Your task to perform on an android device: What's the weather? Image 0: 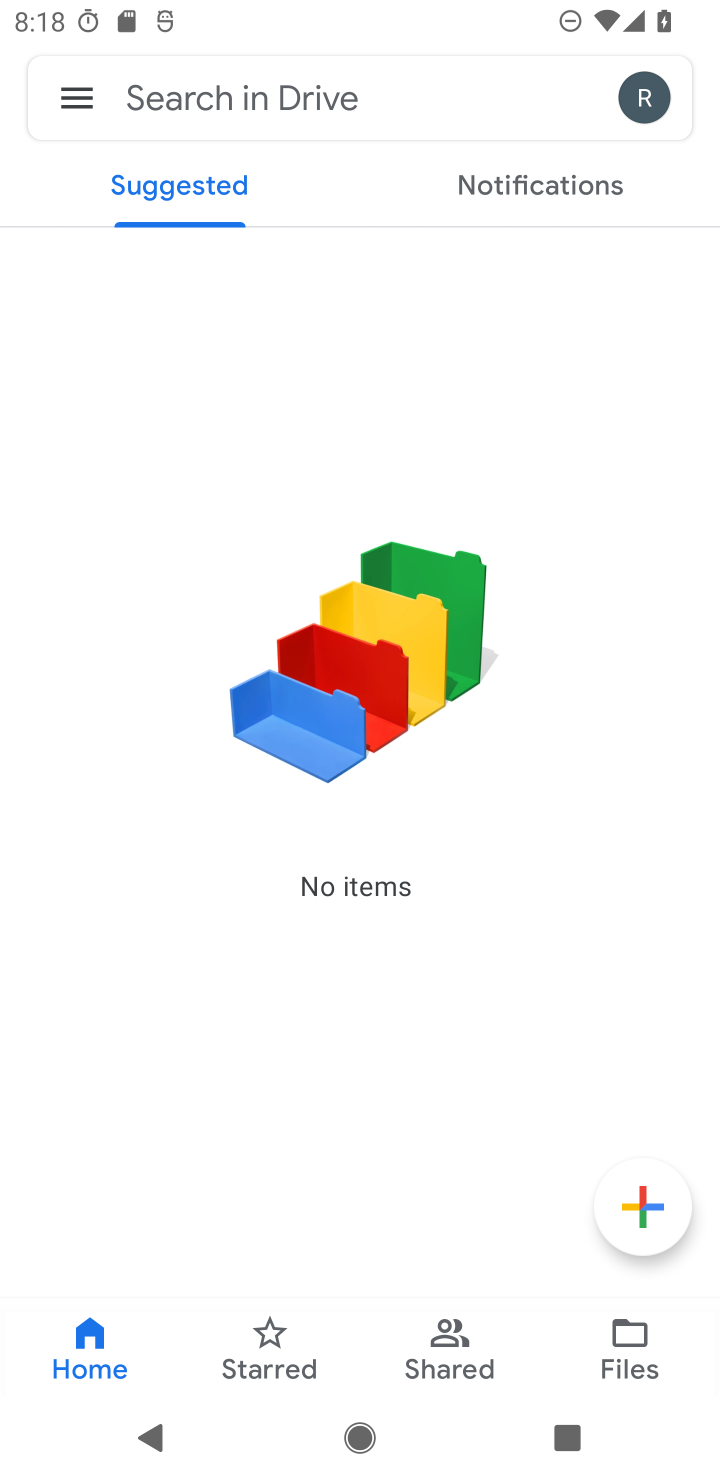
Step 0: press home button
Your task to perform on an android device: What's the weather? Image 1: 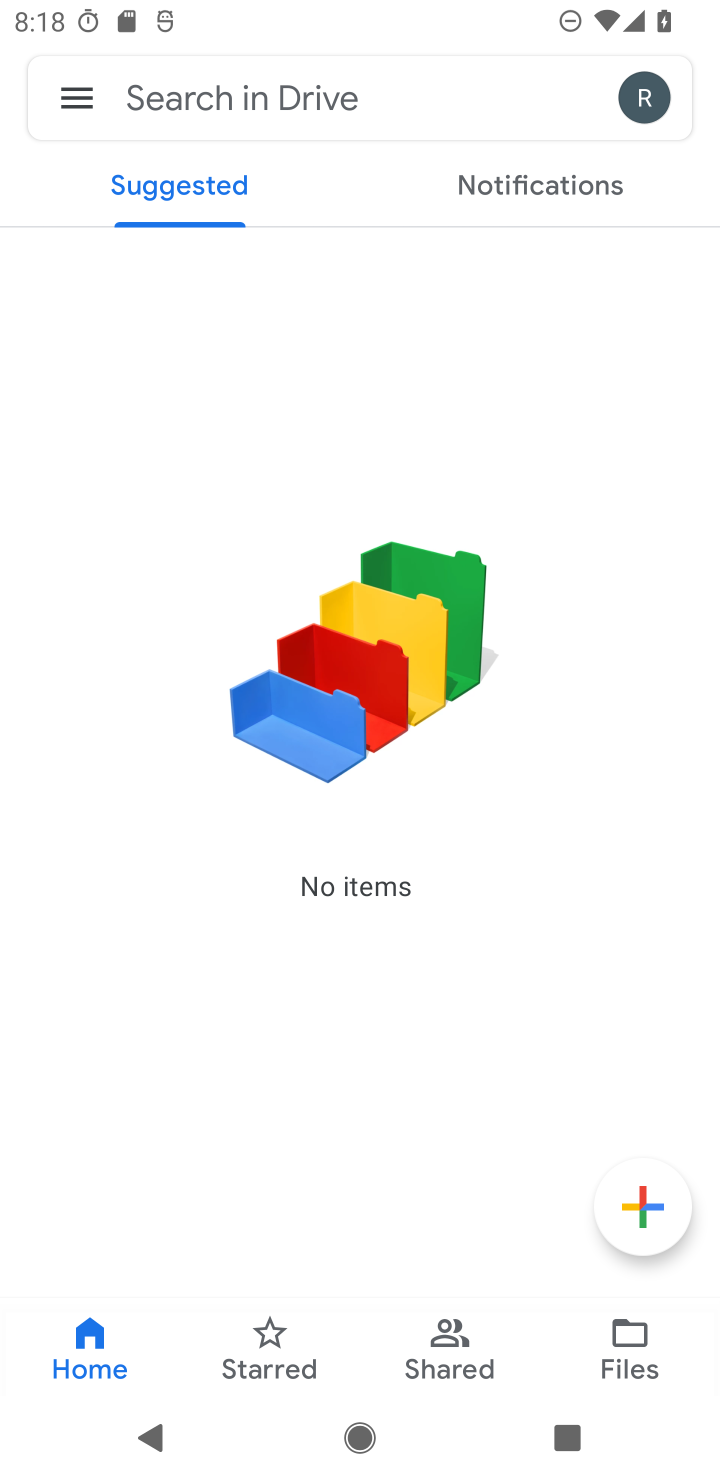
Step 1: press home button
Your task to perform on an android device: What's the weather? Image 2: 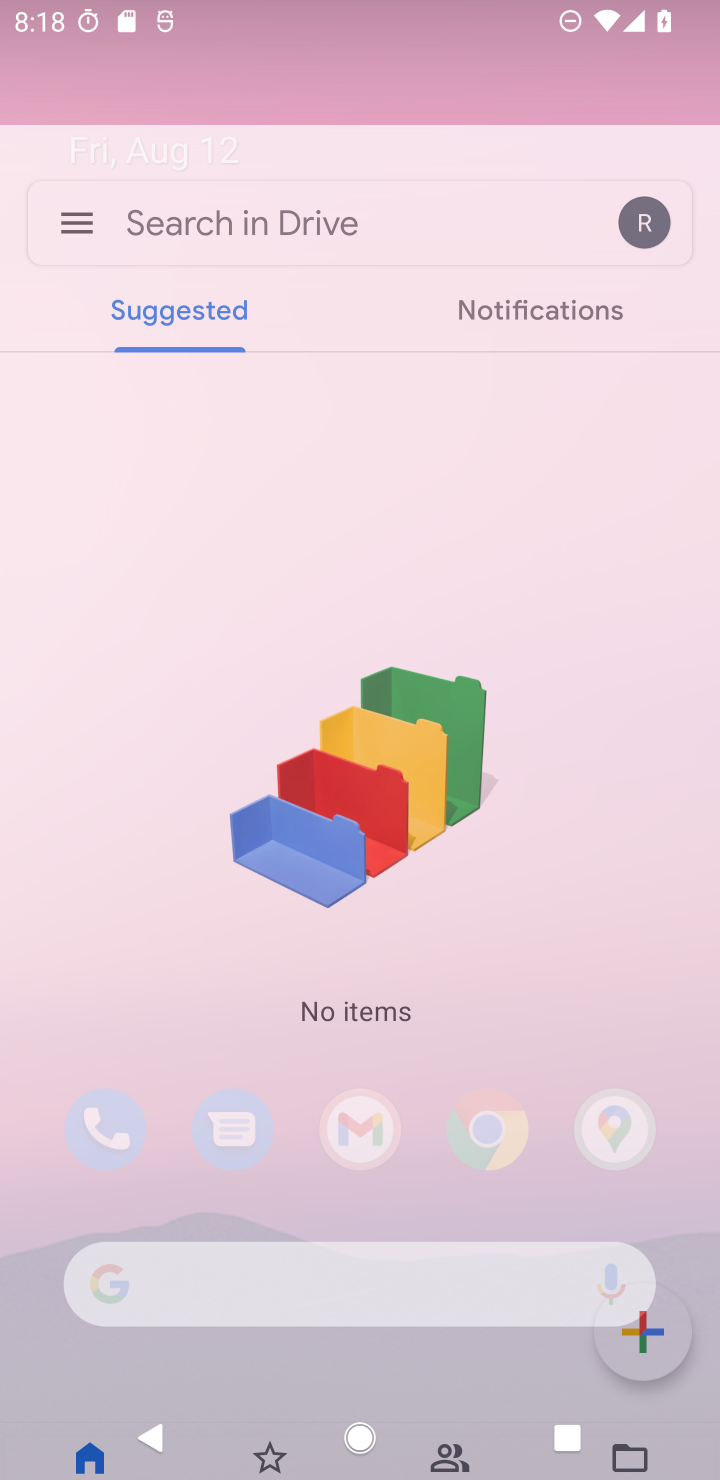
Step 2: press home button
Your task to perform on an android device: What's the weather? Image 3: 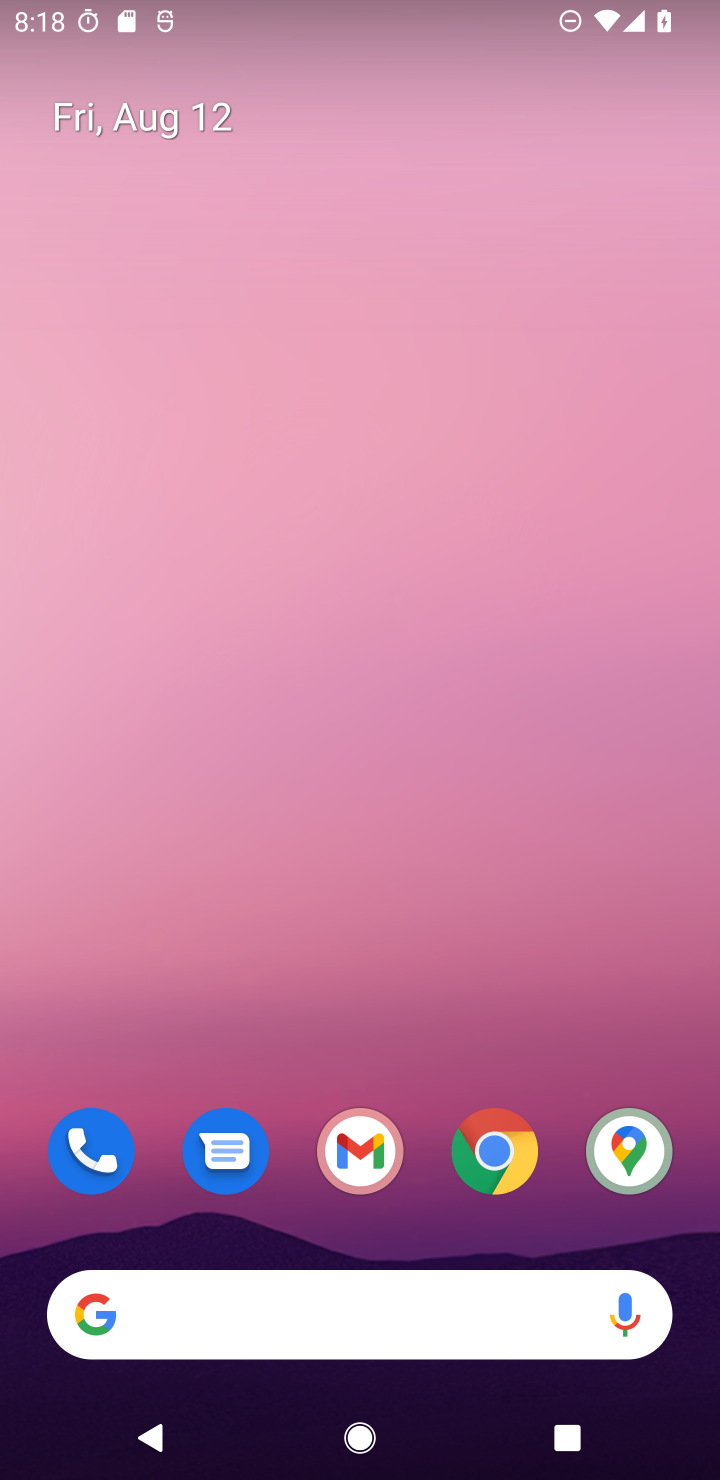
Step 3: drag from (429, 743) to (449, 98)
Your task to perform on an android device: What's the weather? Image 4: 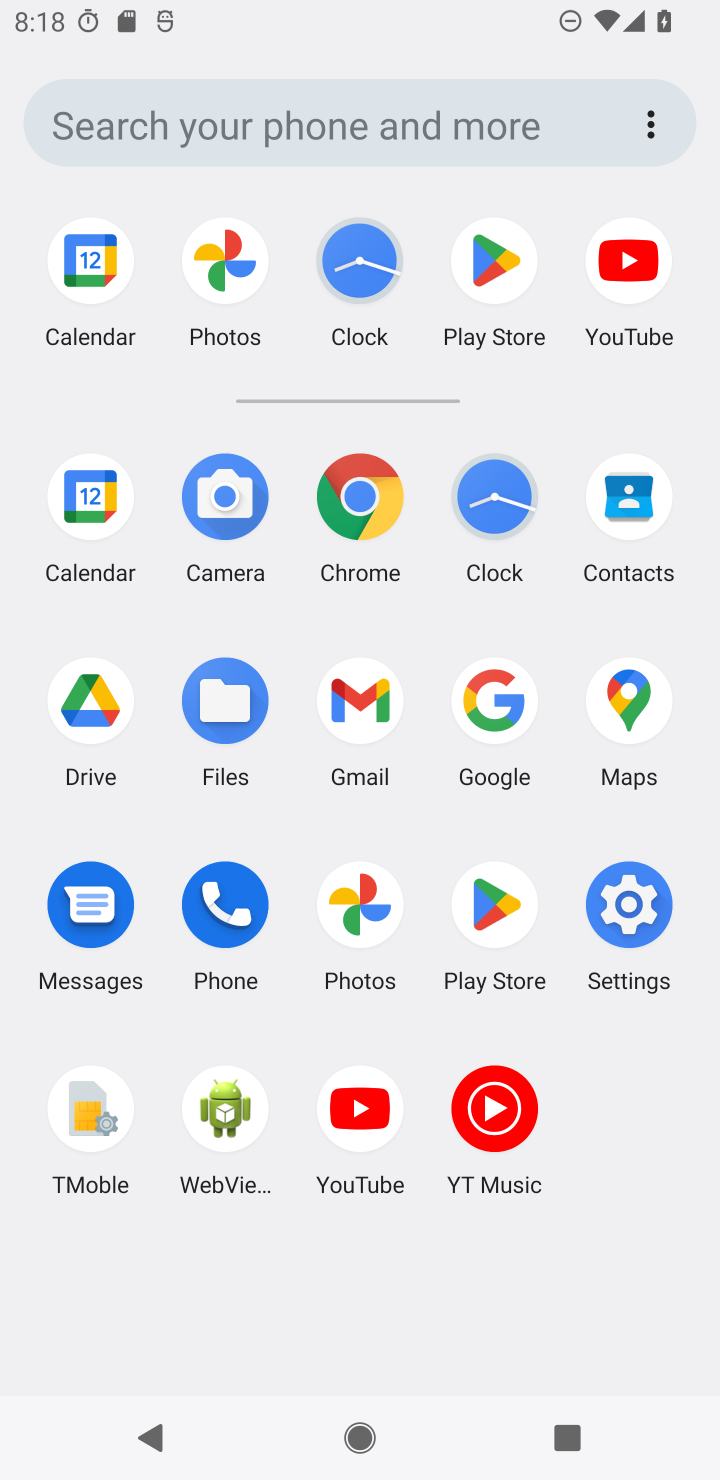
Step 4: click (373, 491)
Your task to perform on an android device: What's the weather? Image 5: 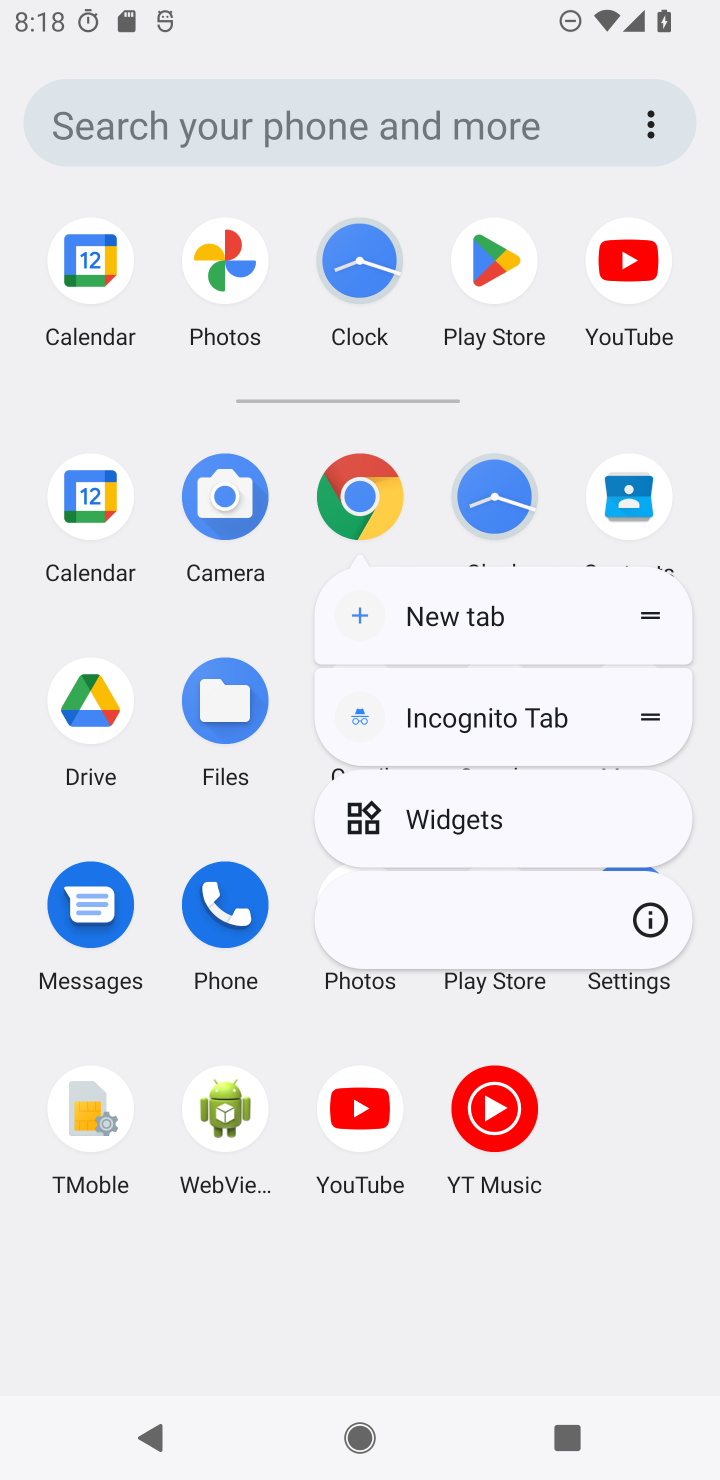
Step 5: click (353, 497)
Your task to perform on an android device: What's the weather? Image 6: 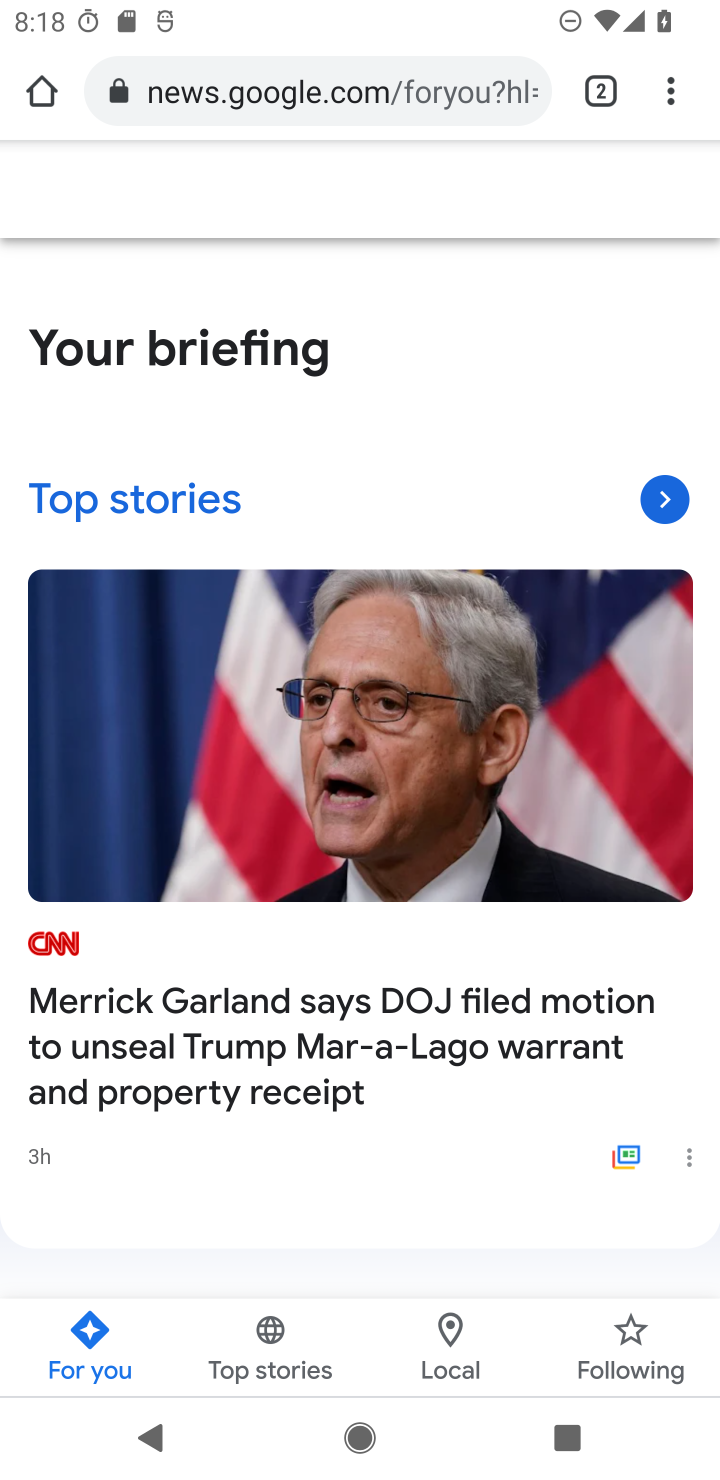
Step 6: click (304, 85)
Your task to perform on an android device: What's the weather? Image 7: 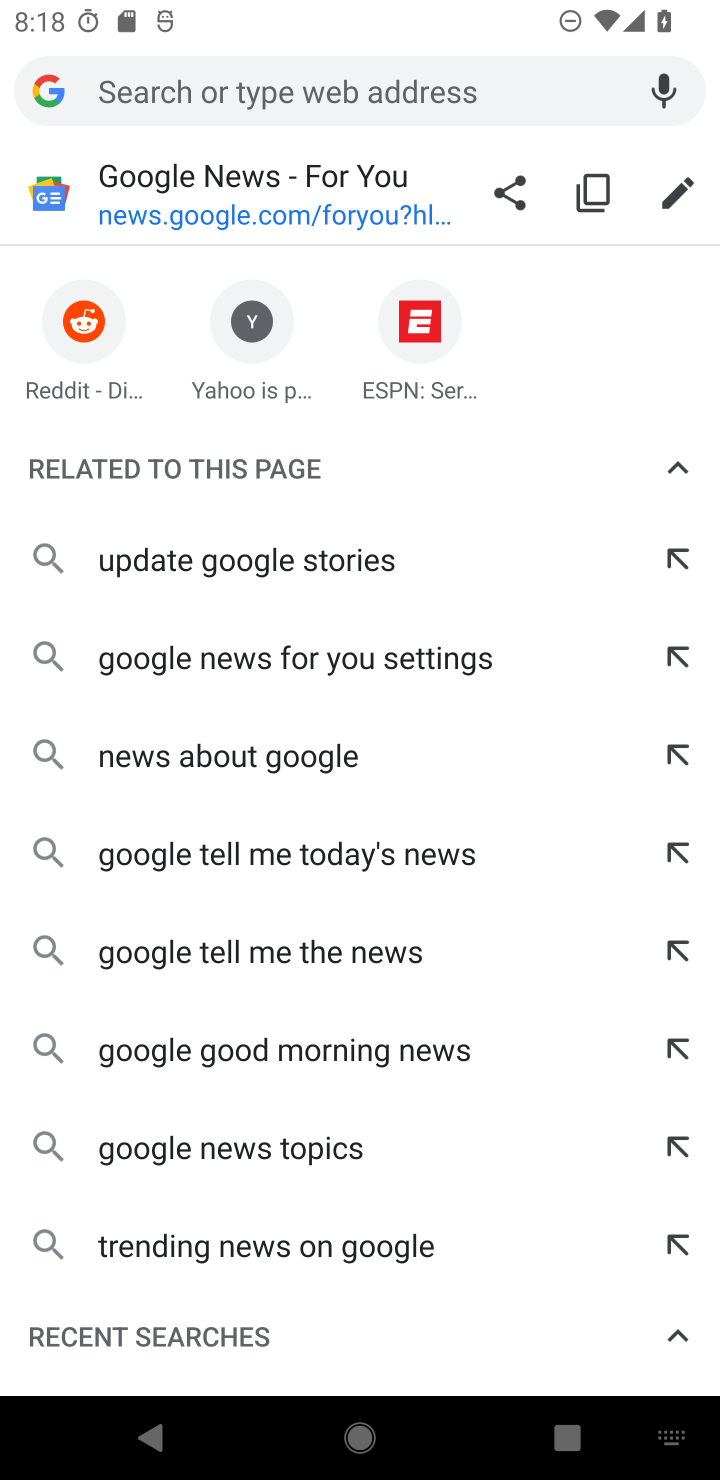
Step 7: type "weather"
Your task to perform on an android device: What's the weather? Image 8: 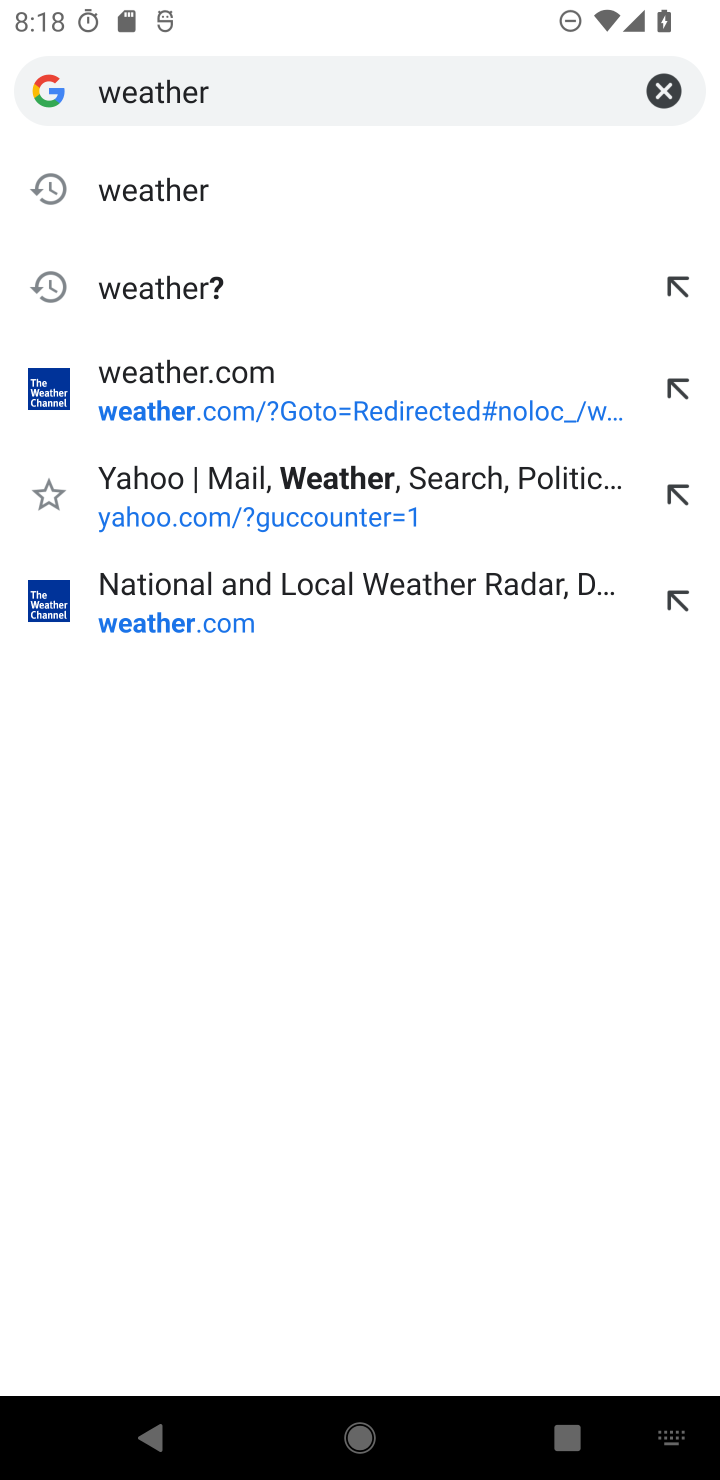
Step 8: click (198, 195)
Your task to perform on an android device: What's the weather? Image 9: 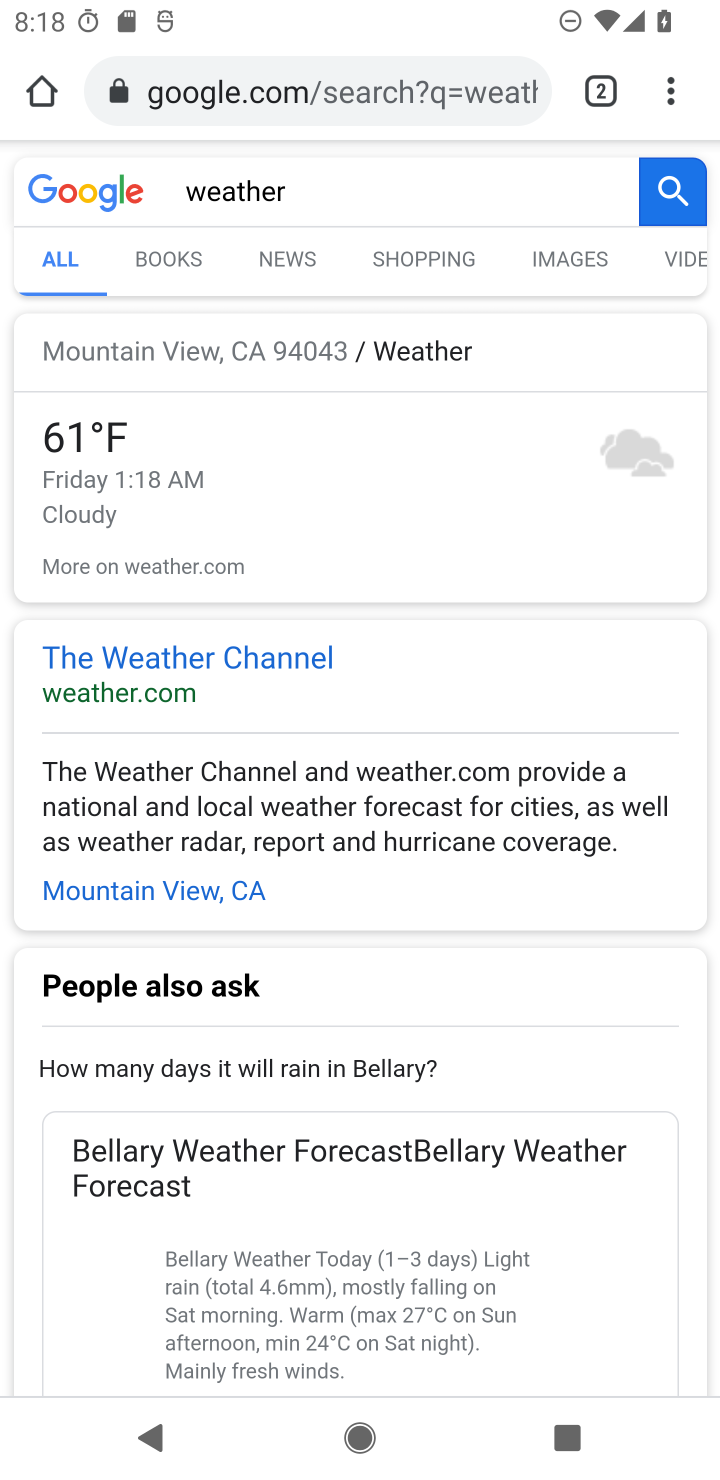
Step 9: task complete